Your task to perform on an android device: Open eBay Image 0: 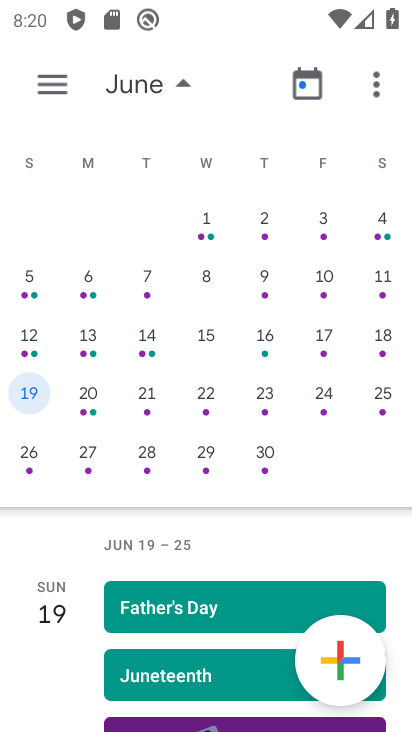
Step 0: press home button
Your task to perform on an android device: Open eBay Image 1: 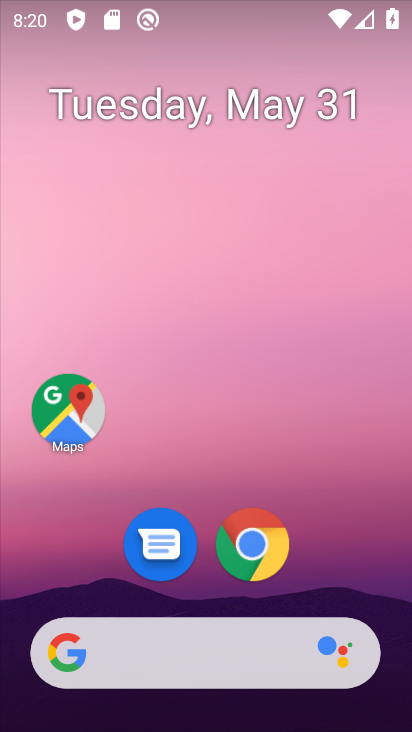
Step 1: click (267, 549)
Your task to perform on an android device: Open eBay Image 2: 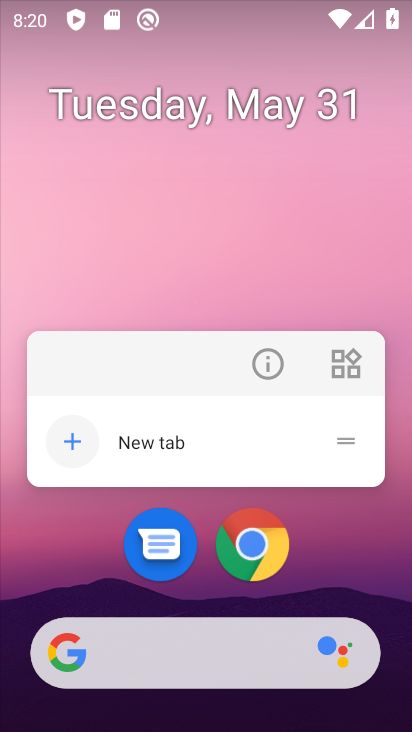
Step 2: click (240, 547)
Your task to perform on an android device: Open eBay Image 3: 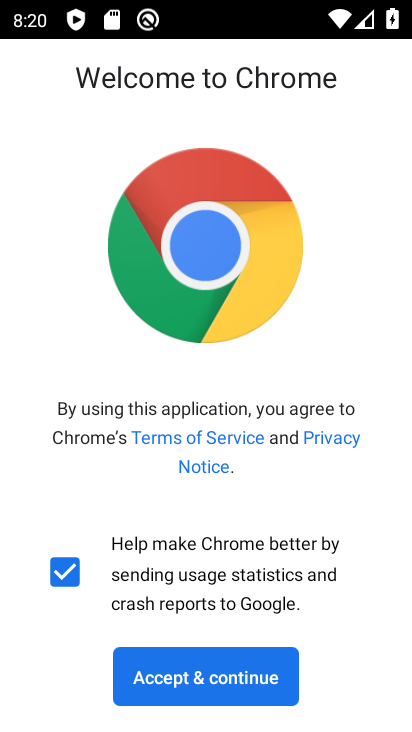
Step 3: click (214, 679)
Your task to perform on an android device: Open eBay Image 4: 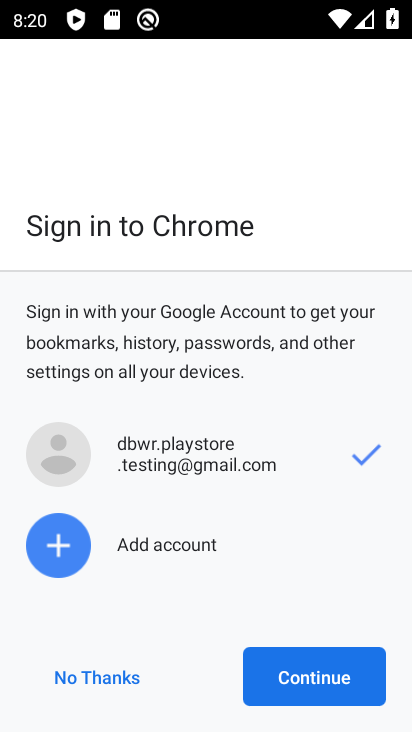
Step 4: click (340, 675)
Your task to perform on an android device: Open eBay Image 5: 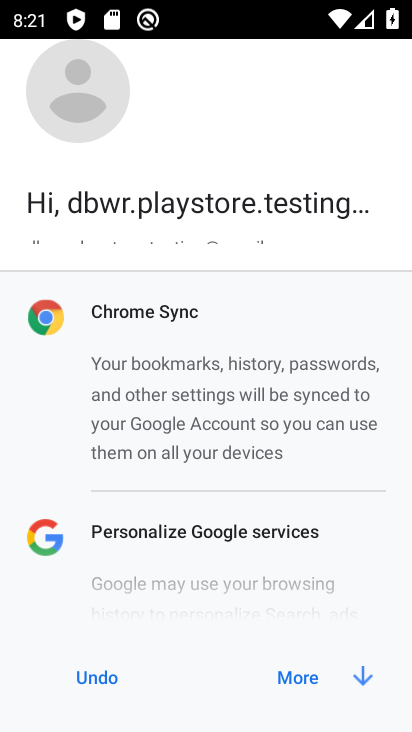
Step 5: click (331, 673)
Your task to perform on an android device: Open eBay Image 6: 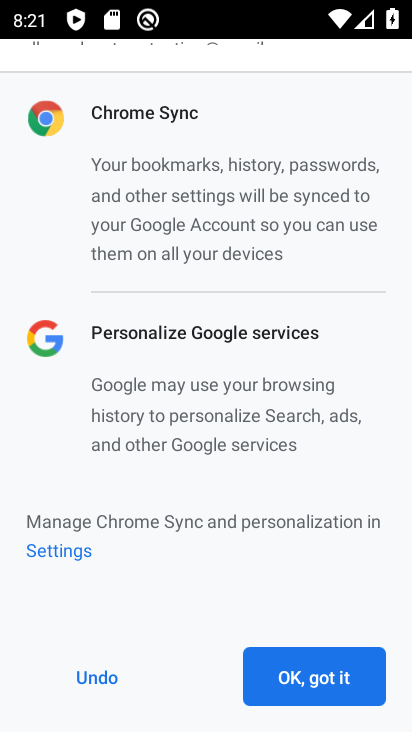
Step 6: click (360, 677)
Your task to perform on an android device: Open eBay Image 7: 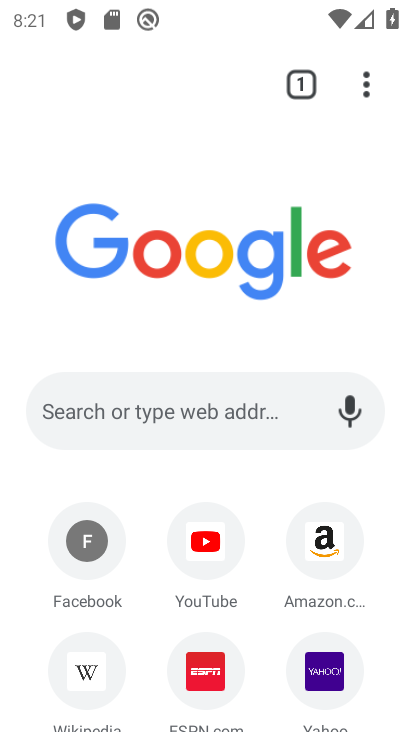
Step 7: click (147, 411)
Your task to perform on an android device: Open eBay Image 8: 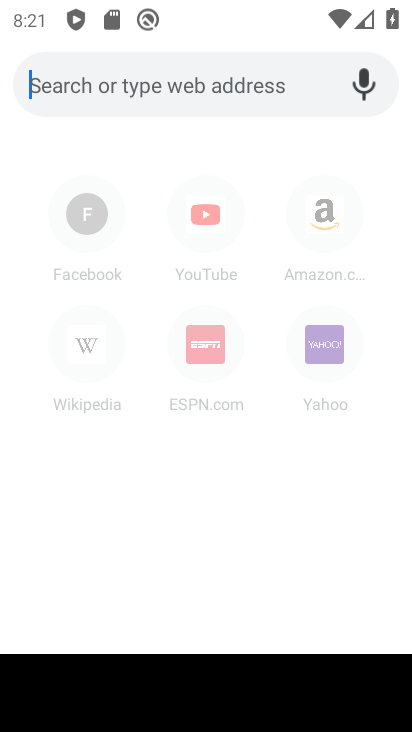
Step 8: type "ebay"
Your task to perform on an android device: Open eBay Image 9: 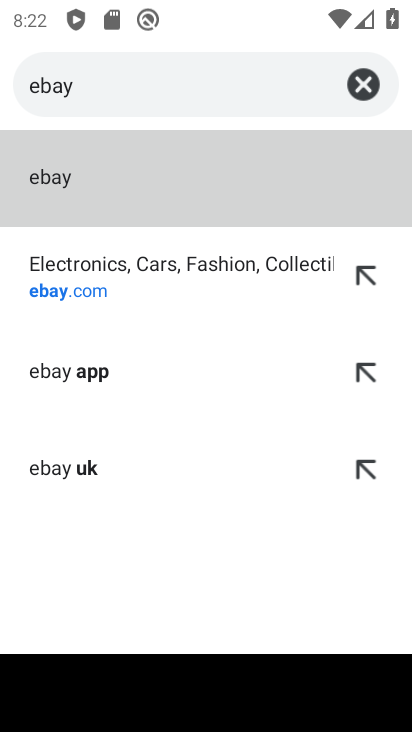
Step 9: click (46, 162)
Your task to perform on an android device: Open eBay Image 10: 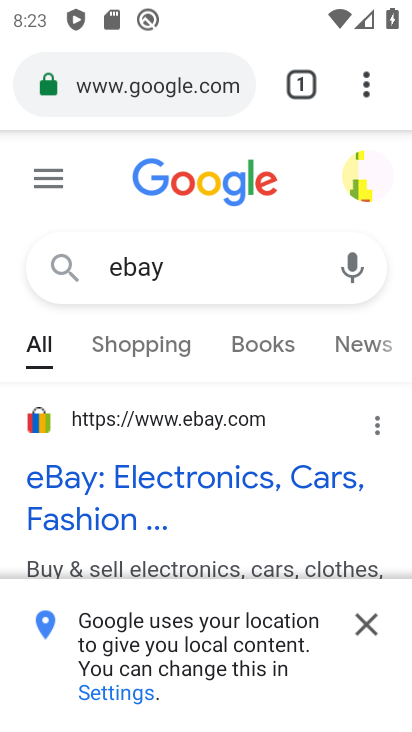
Step 10: click (289, 479)
Your task to perform on an android device: Open eBay Image 11: 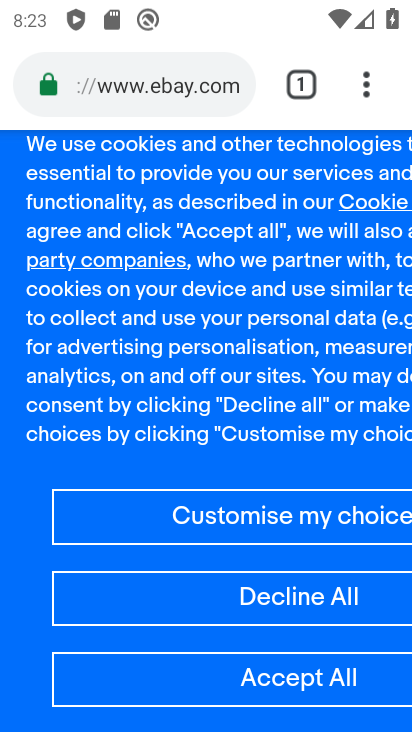
Step 11: task complete